Your task to perform on an android device: Open notification settings Image 0: 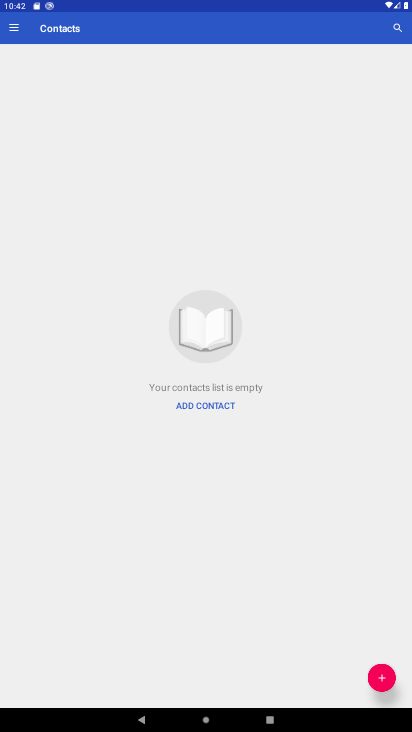
Step 0: press home button
Your task to perform on an android device: Open notification settings Image 1: 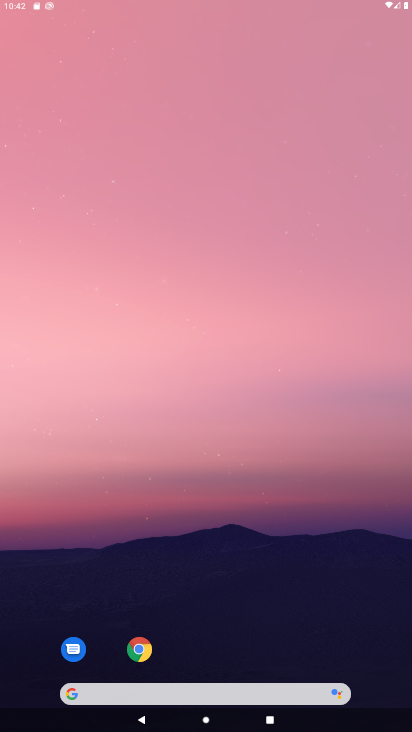
Step 1: drag from (277, 687) to (342, 76)
Your task to perform on an android device: Open notification settings Image 2: 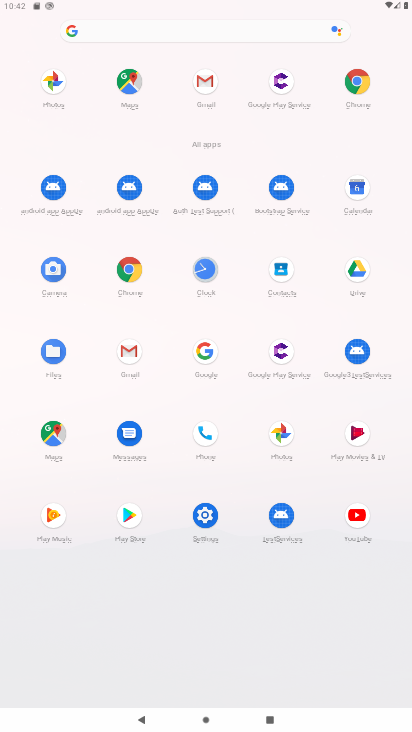
Step 2: click (213, 526)
Your task to perform on an android device: Open notification settings Image 3: 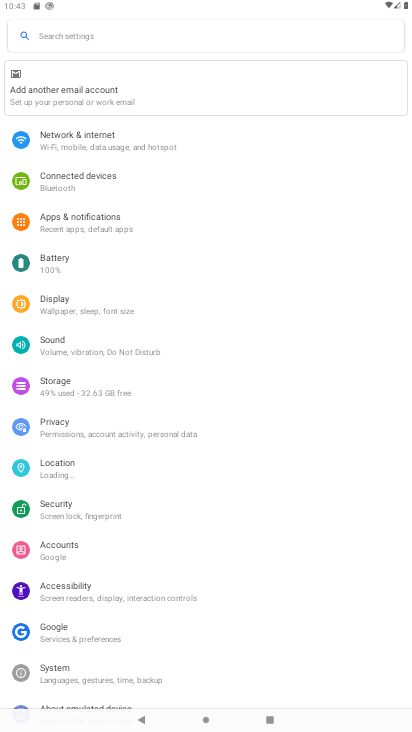
Step 3: click (92, 218)
Your task to perform on an android device: Open notification settings Image 4: 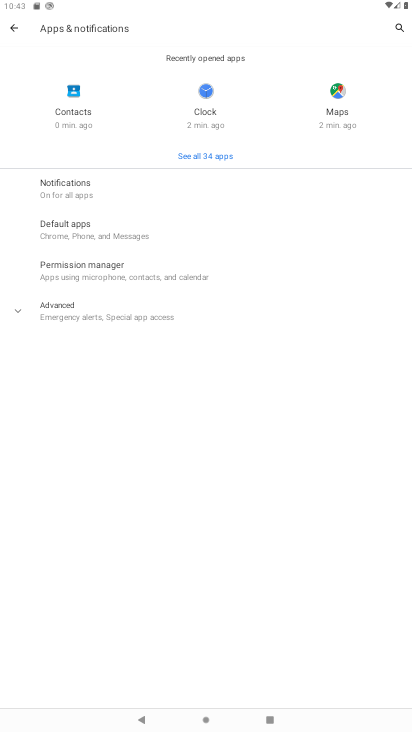
Step 4: click (112, 187)
Your task to perform on an android device: Open notification settings Image 5: 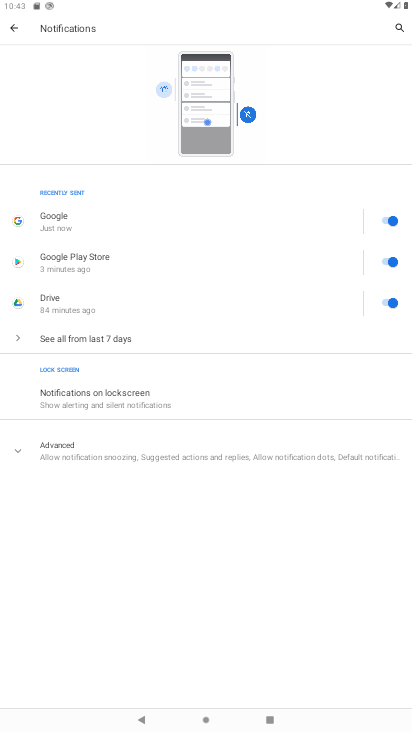
Step 5: task complete